Your task to perform on an android device: check storage Image 0: 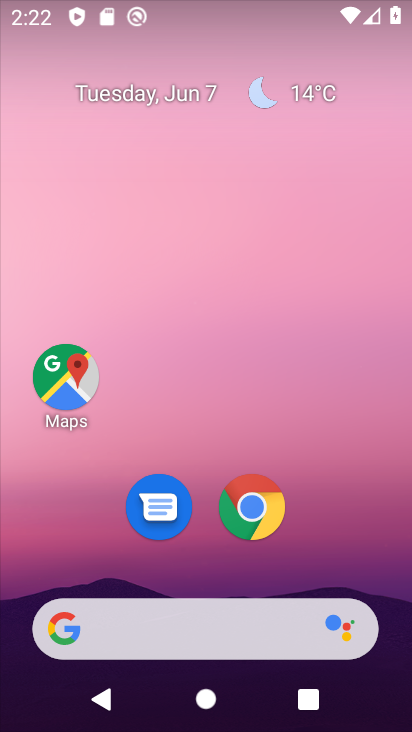
Step 0: drag from (339, 517) to (301, 144)
Your task to perform on an android device: check storage Image 1: 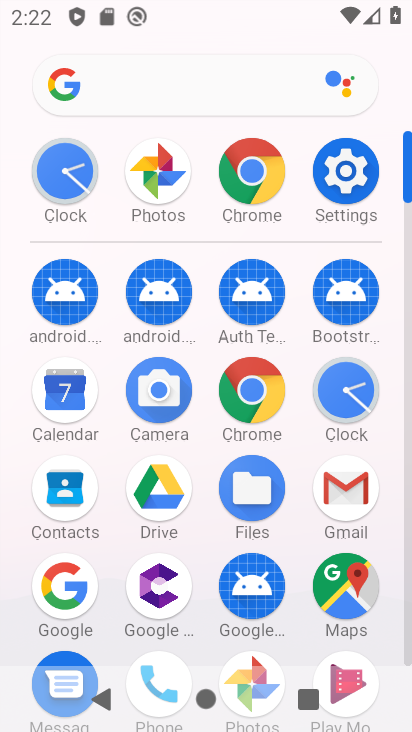
Step 1: click (345, 166)
Your task to perform on an android device: check storage Image 2: 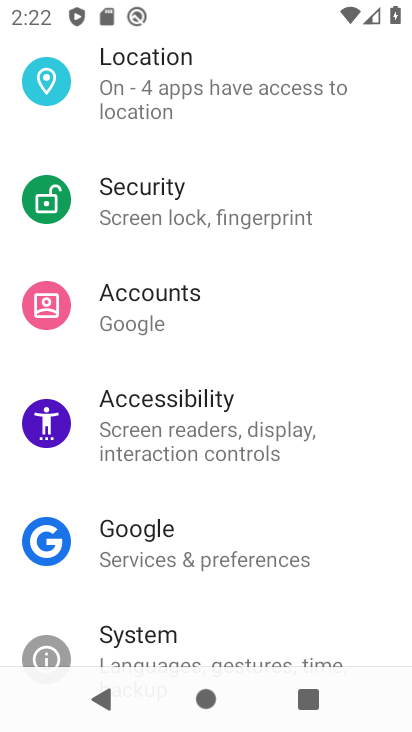
Step 2: drag from (232, 160) to (174, 562)
Your task to perform on an android device: check storage Image 3: 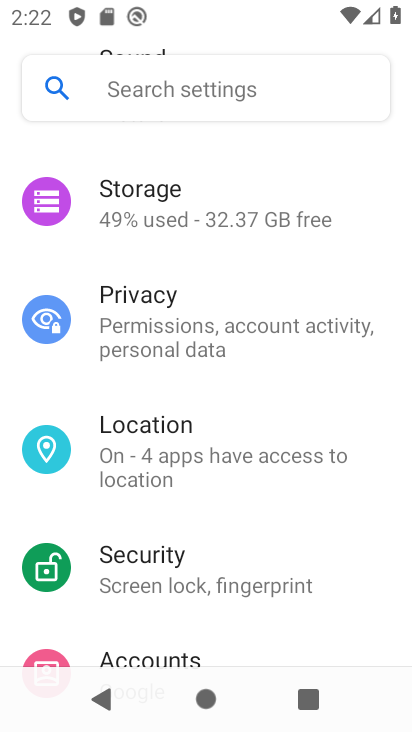
Step 3: click (184, 202)
Your task to perform on an android device: check storage Image 4: 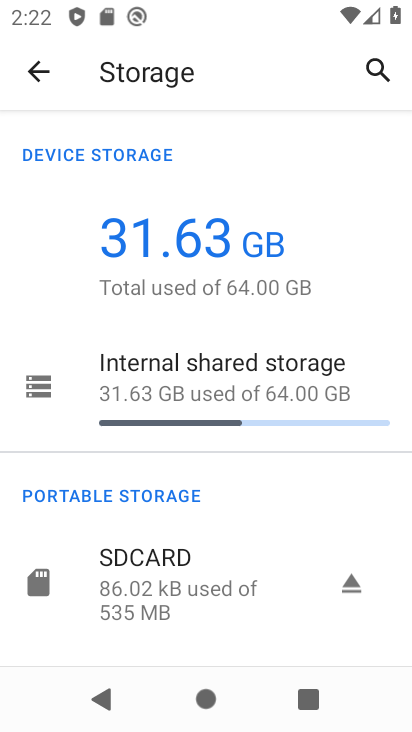
Step 4: task complete